Your task to perform on an android device: Open network settings Image 0: 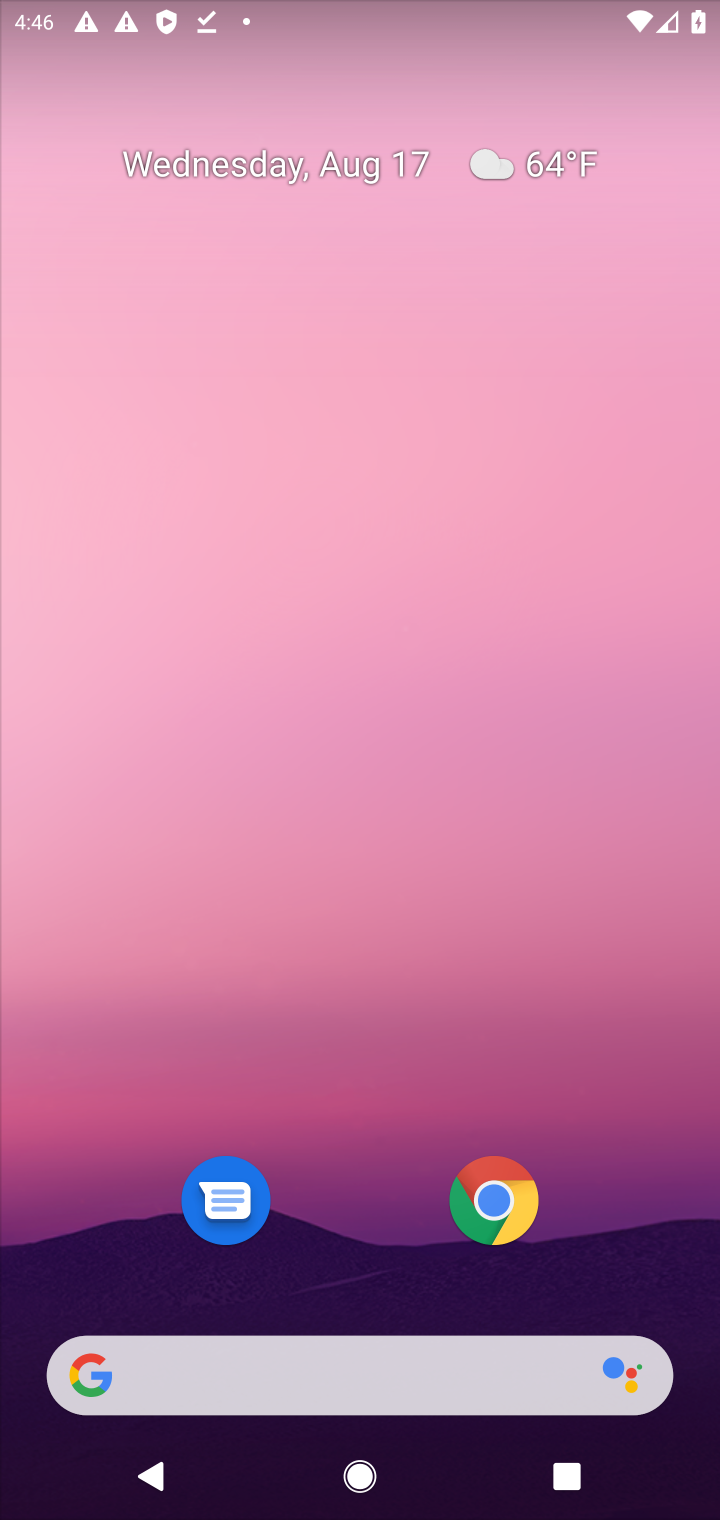
Step 0: drag from (350, 1114) to (350, 52)
Your task to perform on an android device: Open network settings Image 1: 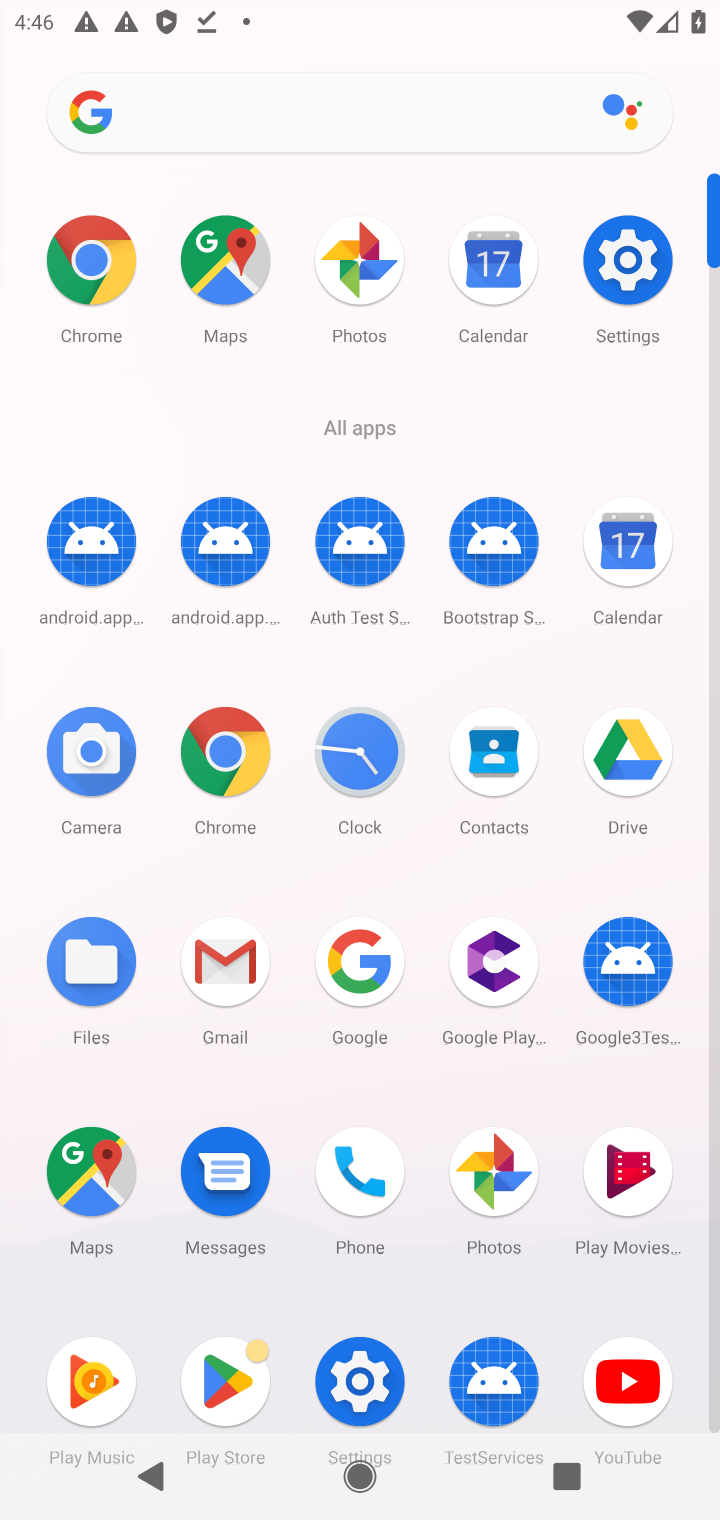
Step 1: click (635, 258)
Your task to perform on an android device: Open network settings Image 2: 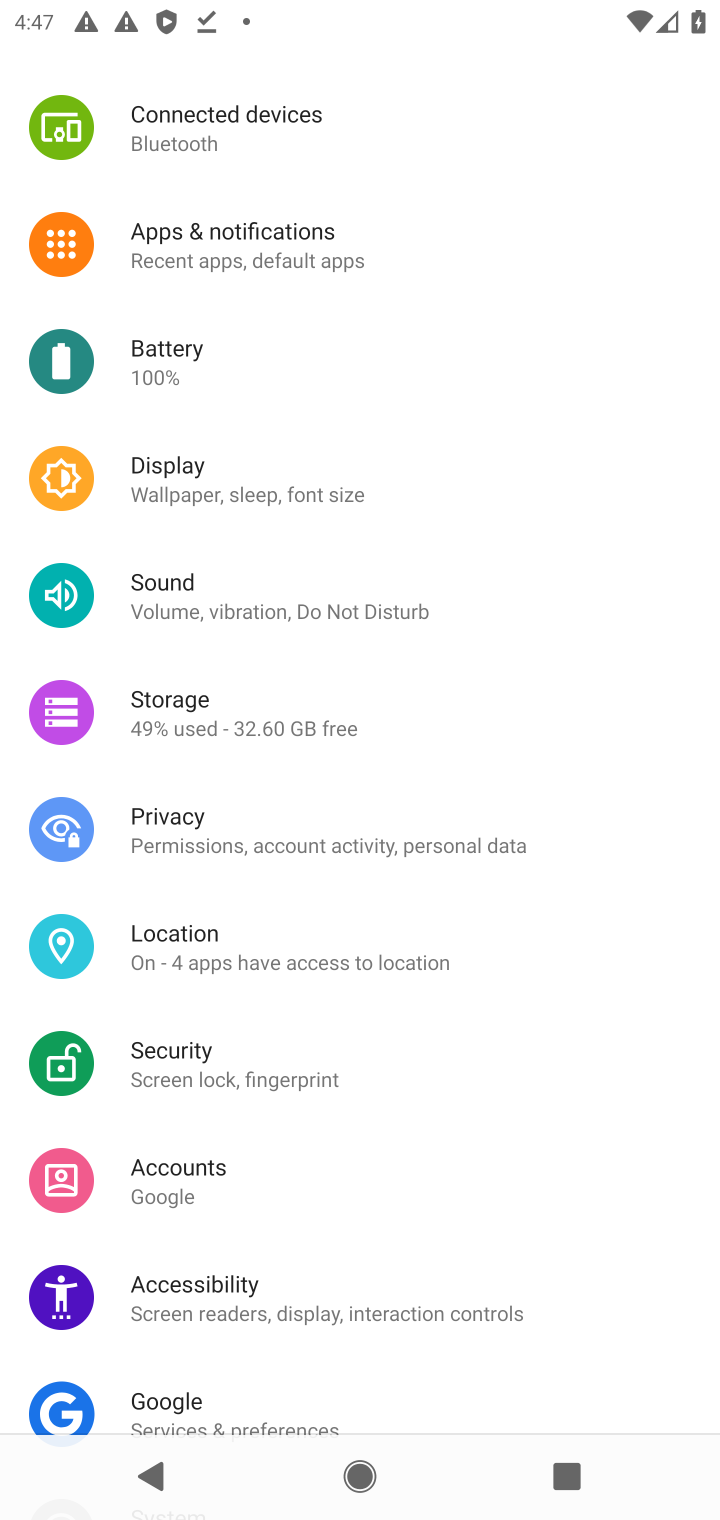
Step 2: drag from (209, 187) to (247, 1261)
Your task to perform on an android device: Open network settings Image 3: 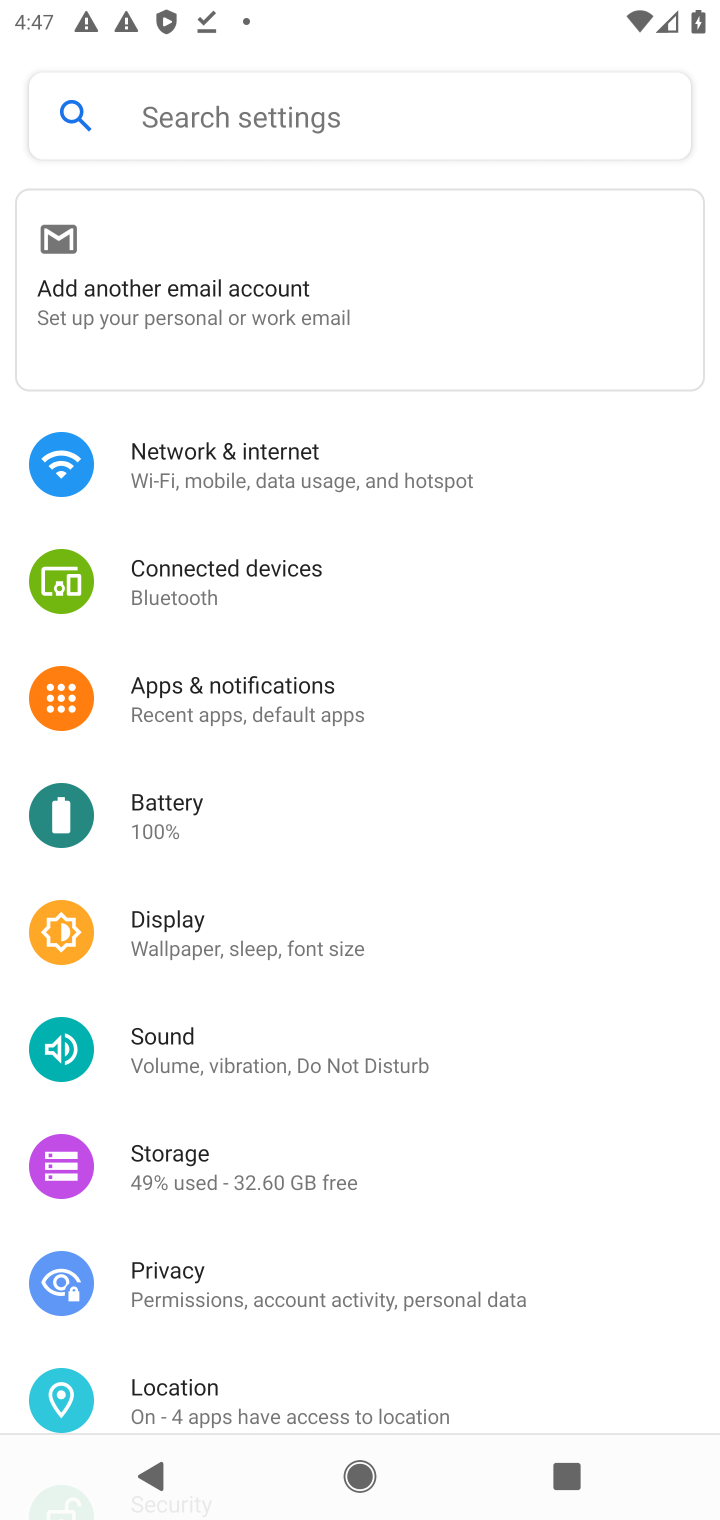
Step 3: click (200, 467)
Your task to perform on an android device: Open network settings Image 4: 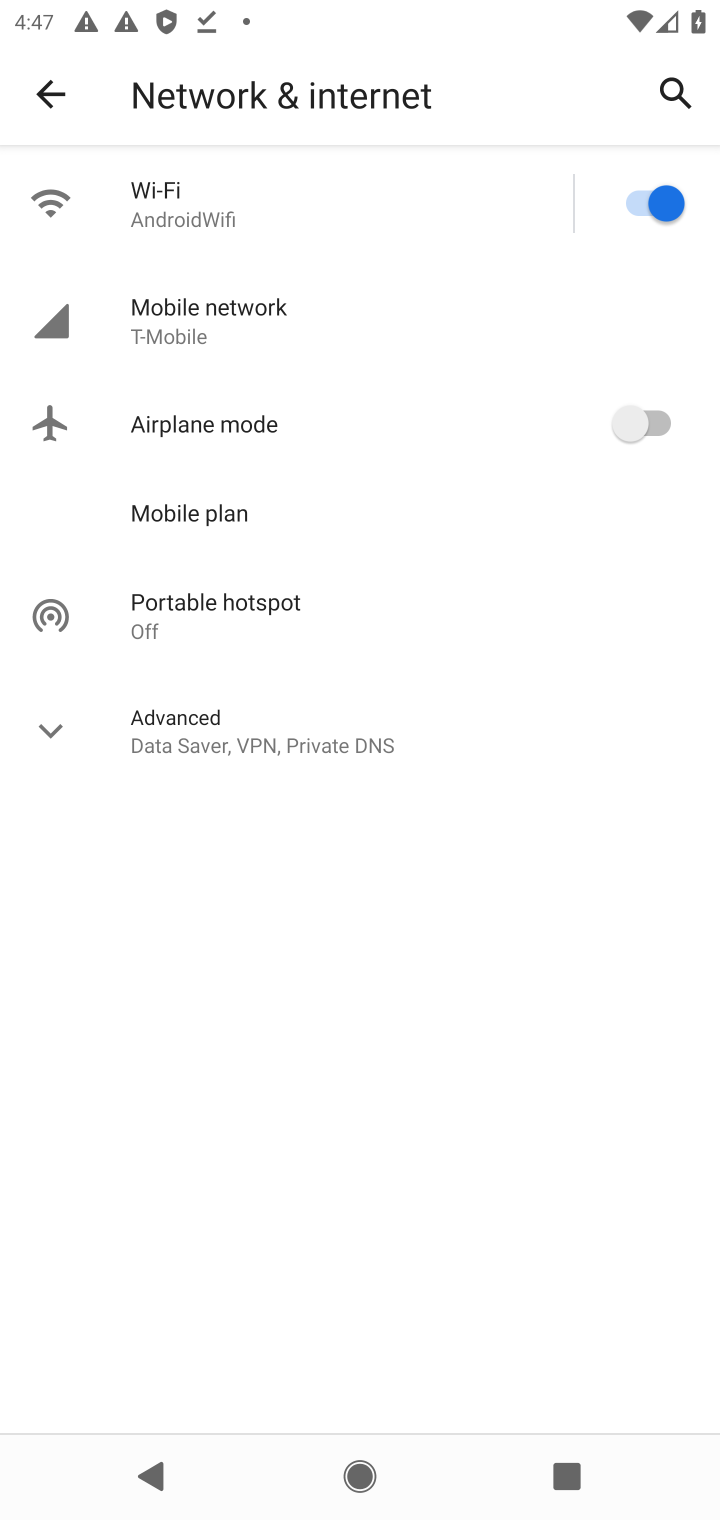
Step 4: task complete